Your task to perform on an android device: see tabs open on other devices in the chrome app Image 0: 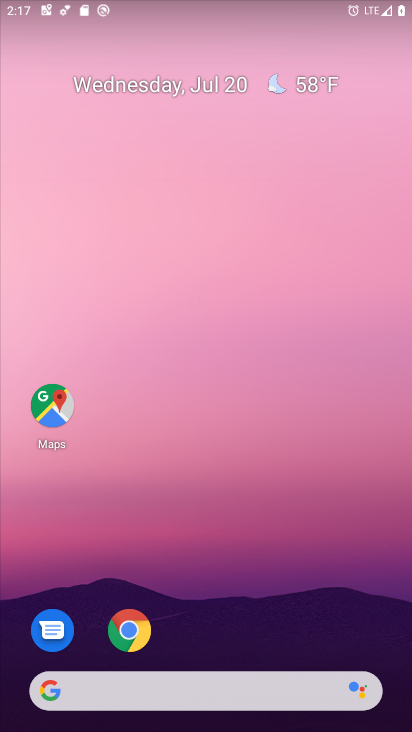
Step 0: drag from (179, 673) to (216, 204)
Your task to perform on an android device: see tabs open on other devices in the chrome app Image 1: 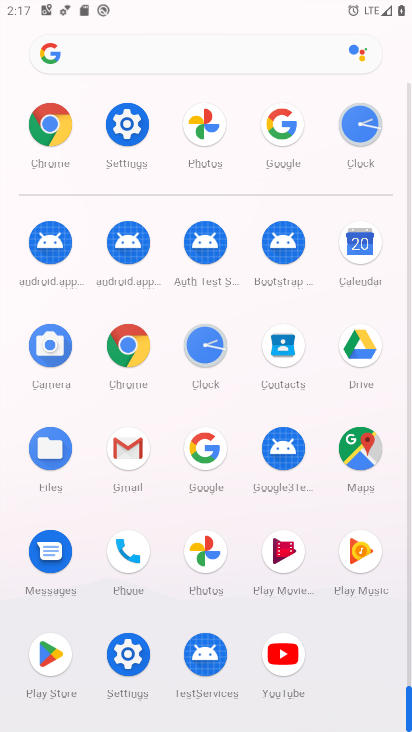
Step 1: click (135, 363)
Your task to perform on an android device: see tabs open on other devices in the chrome app Image 2: 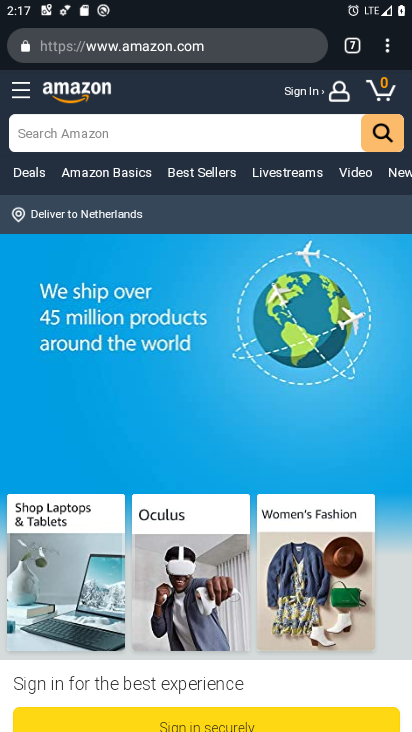
Step 2: task complete